Your task to perform on an android device: turn on sleep mode Image 0: 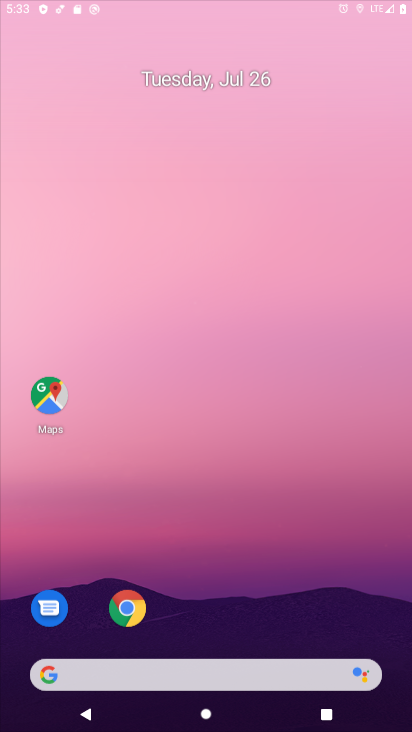
Step 0: drag from (361, 636) to (139, 18)
Your task to perform on an android device: turn on sleep mode Image 1: 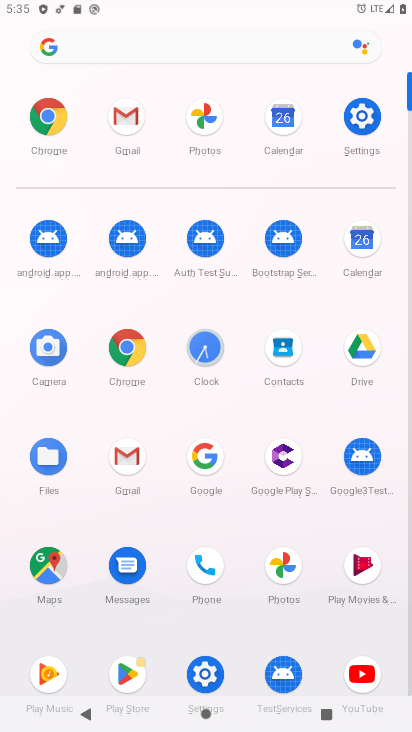
Step 1: click (208, 661)
Your task to perform on an android device: turn on sleep mode Image 2: 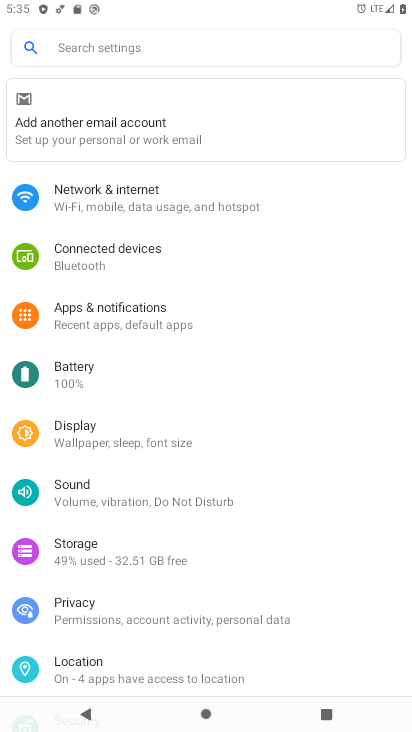
Step 2: task complete